Your task to perform on an android device: change the clock display to analog Image 0: 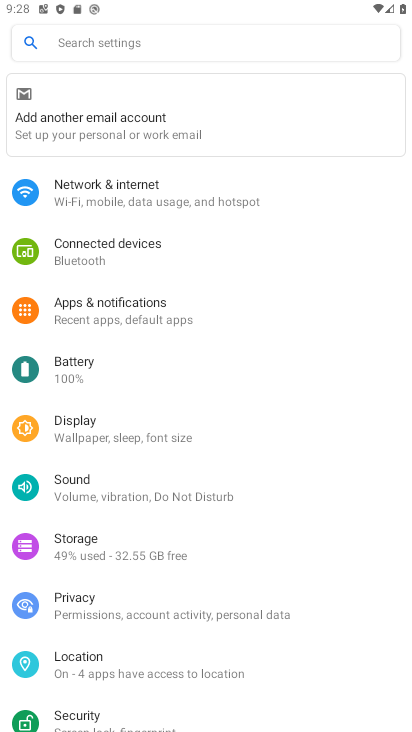
Step 0: press home button
Your task to perform on an android device: change the clock display to analog Image 1: 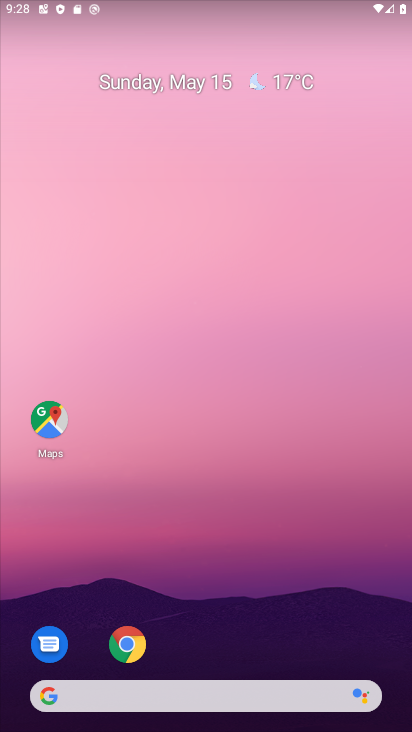
Step 1: drag from (244, 707) to (219, 253)
Your task to perform on an android device: change the clock display to analog Image 2: 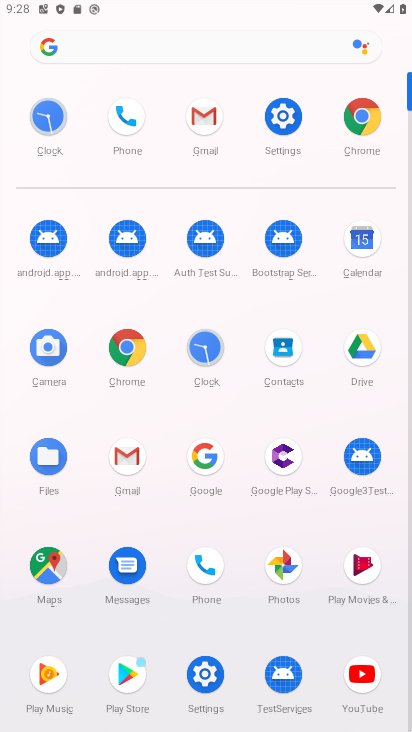
Step 2: click (221, 346)
Your task to perform on an android device: change the clock display to analog Image 3: 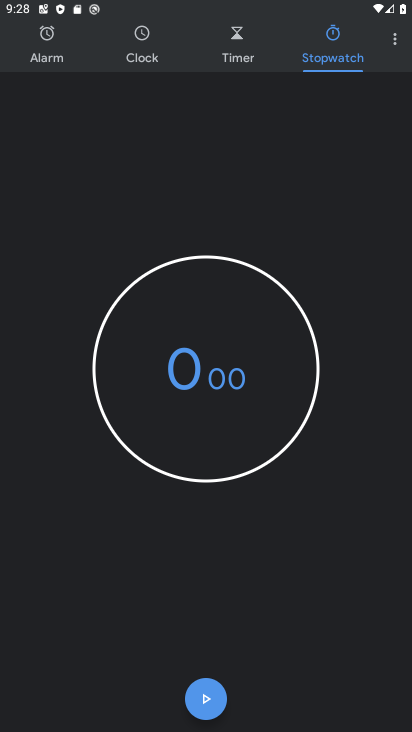
Step 3: click (388, 36)
Your task to perform on an android device: change the clock display to analog Image 4: 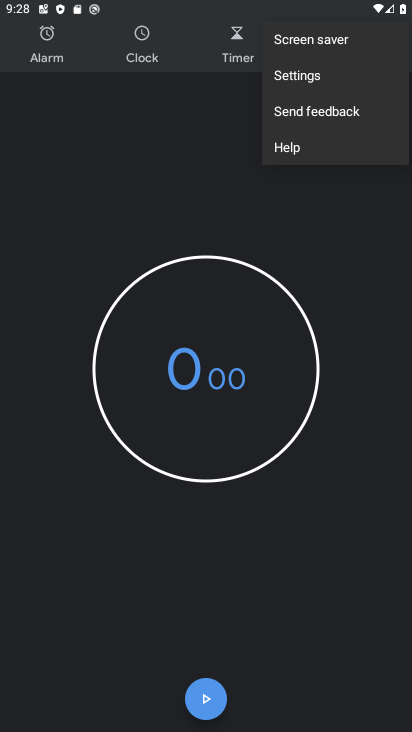
Step 4: click (298, 72)
Your task to perform on an android device: change the clock display to analog Image 5: 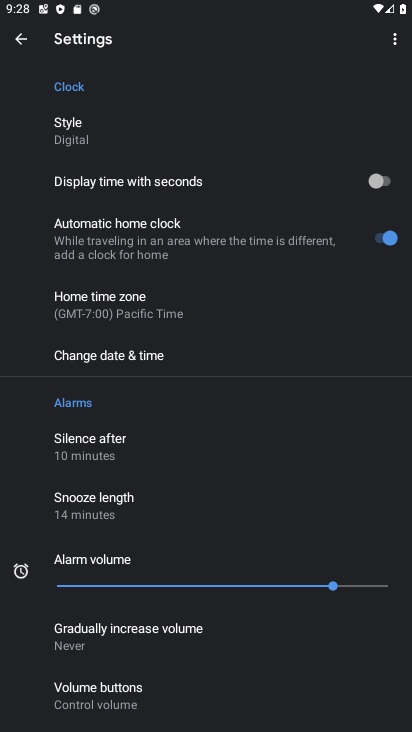
Step 5: click (94, 135)
Your task to perform on an android device: change the clock display to analog Image 6: 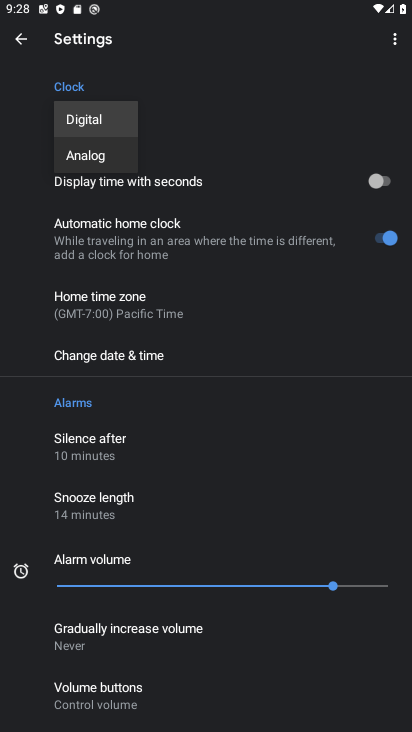
Step 6: click (90, 159)
Your task to perform on an android device: change the clock display to analog Image 7: 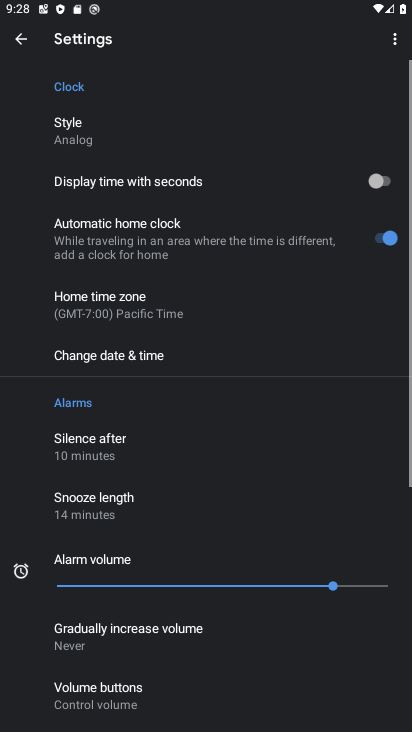
Step 7: task complete